Your task to perform on an android device: open app "AliExpress" Image 0: 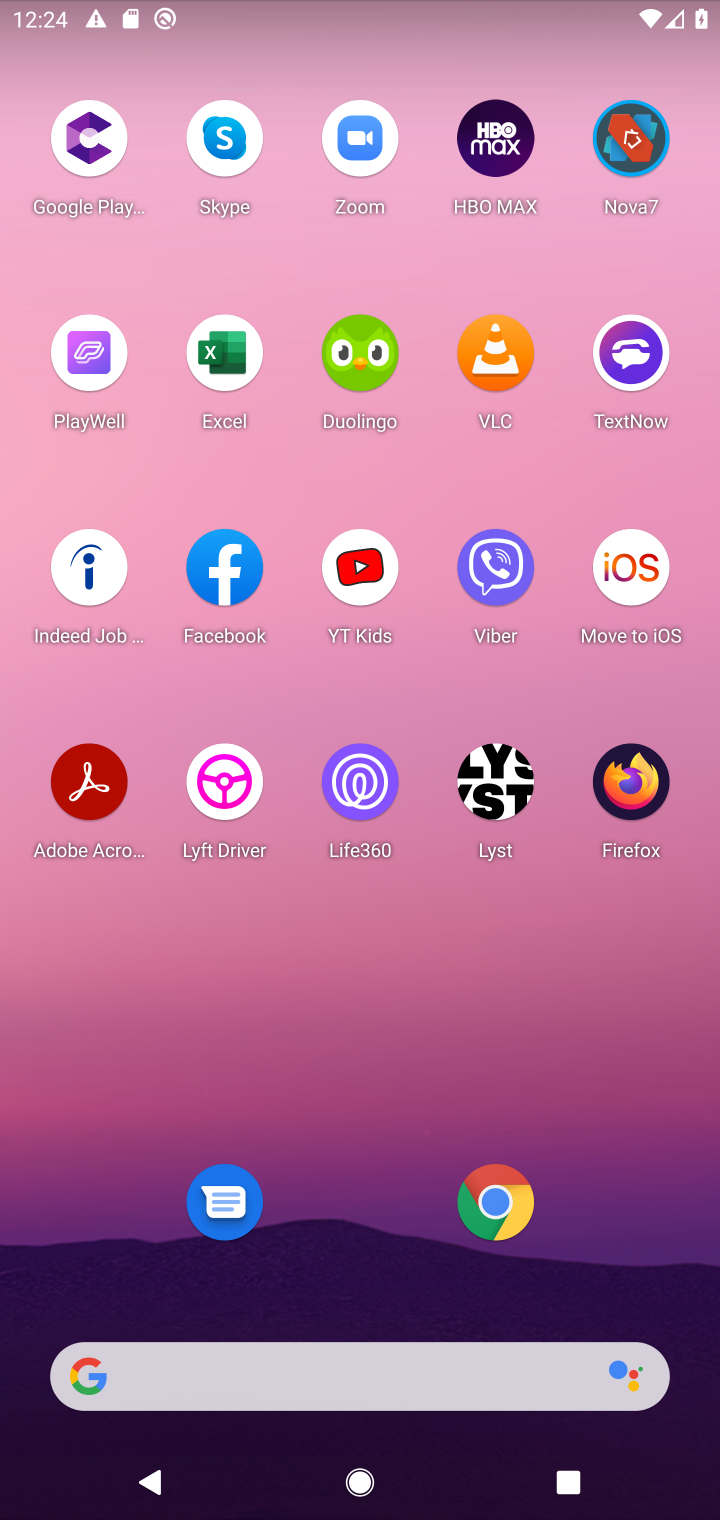
Step 0: click (412, 1347)
Your task to perform on an android device: open app "AliExpress" Image 1: 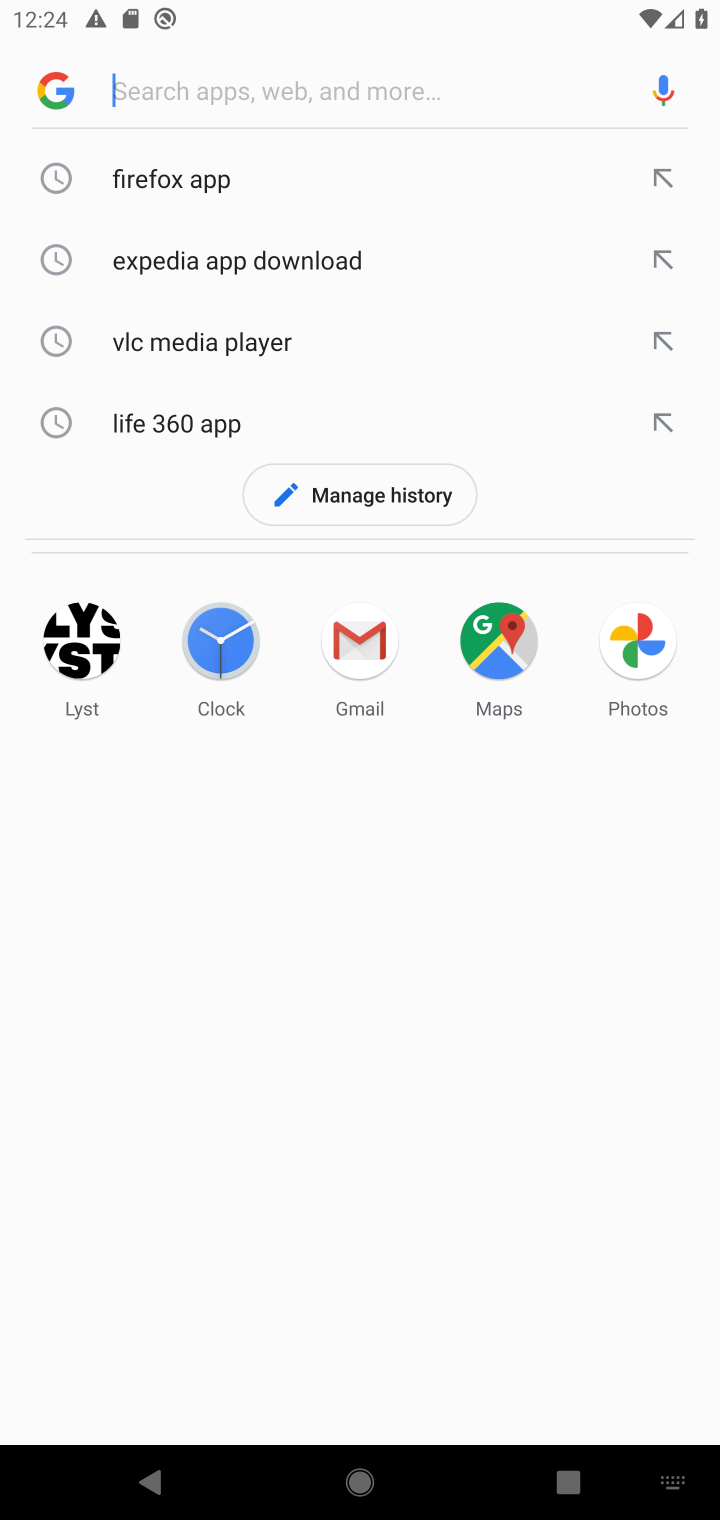
Step 1: type "aliexpress"
Your task to perform on an android device: open app "AliExpress" Image 2: 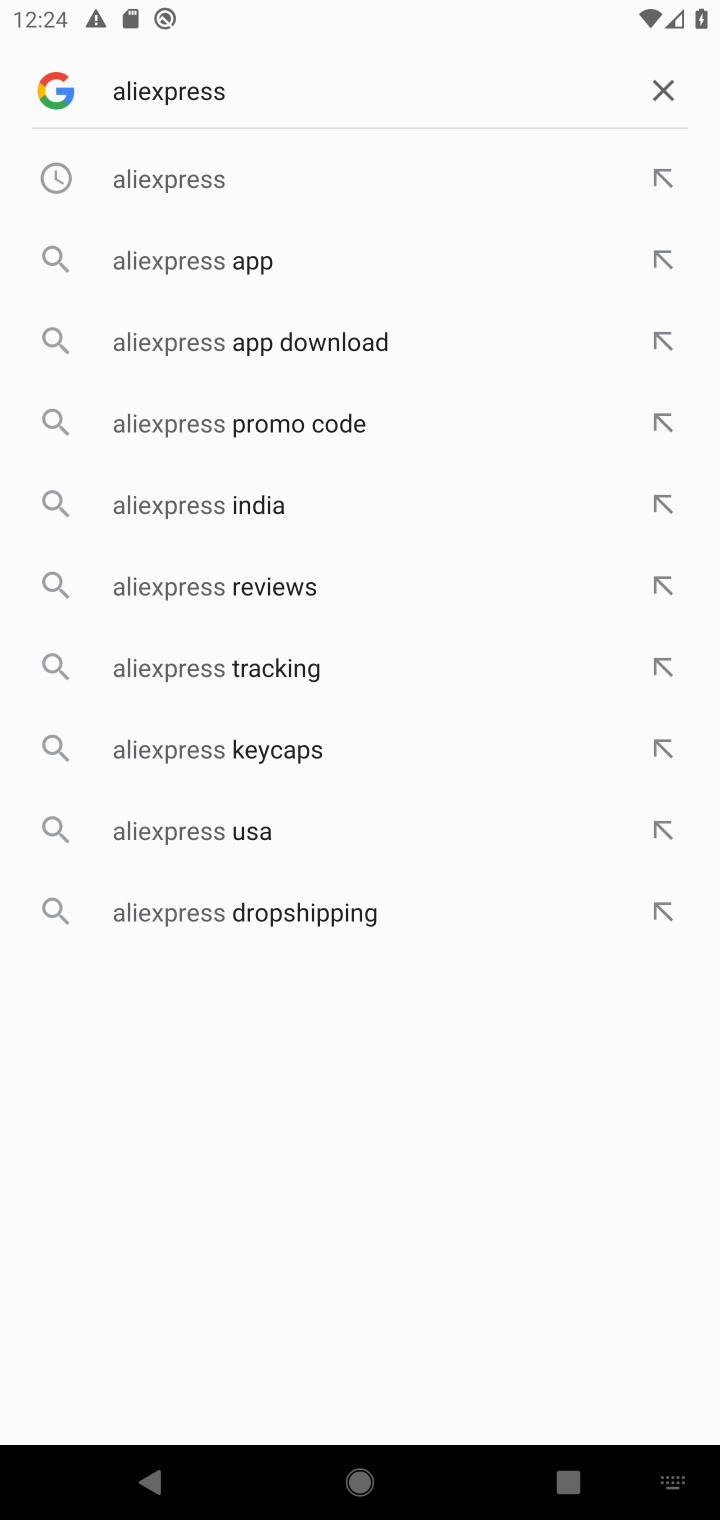
Step 2: click (222, 289)
Your task to perform on an android device: open app "AliExpress" Image 3: 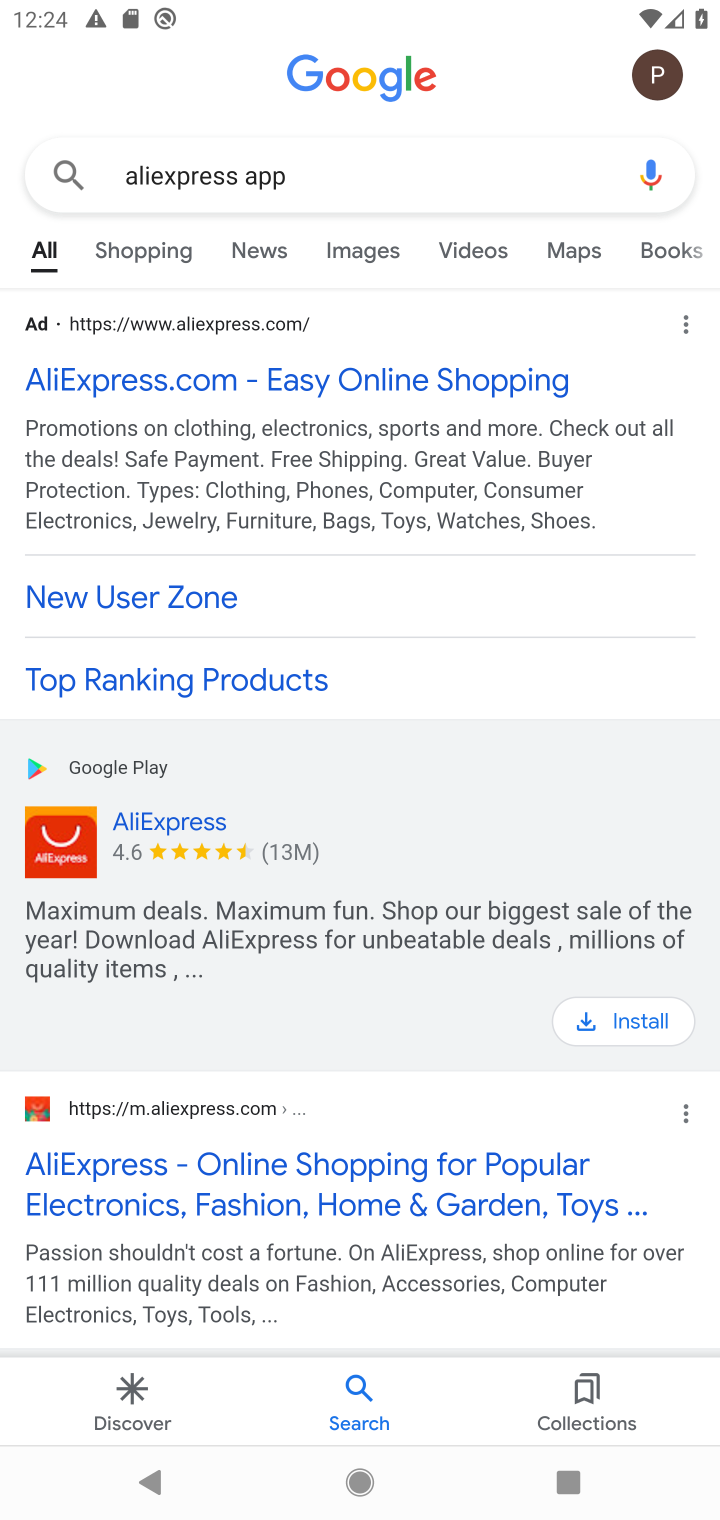
Step 3: click (595, 1000)
Your task to perform on an android device: open app "AliExpress" Image 4: 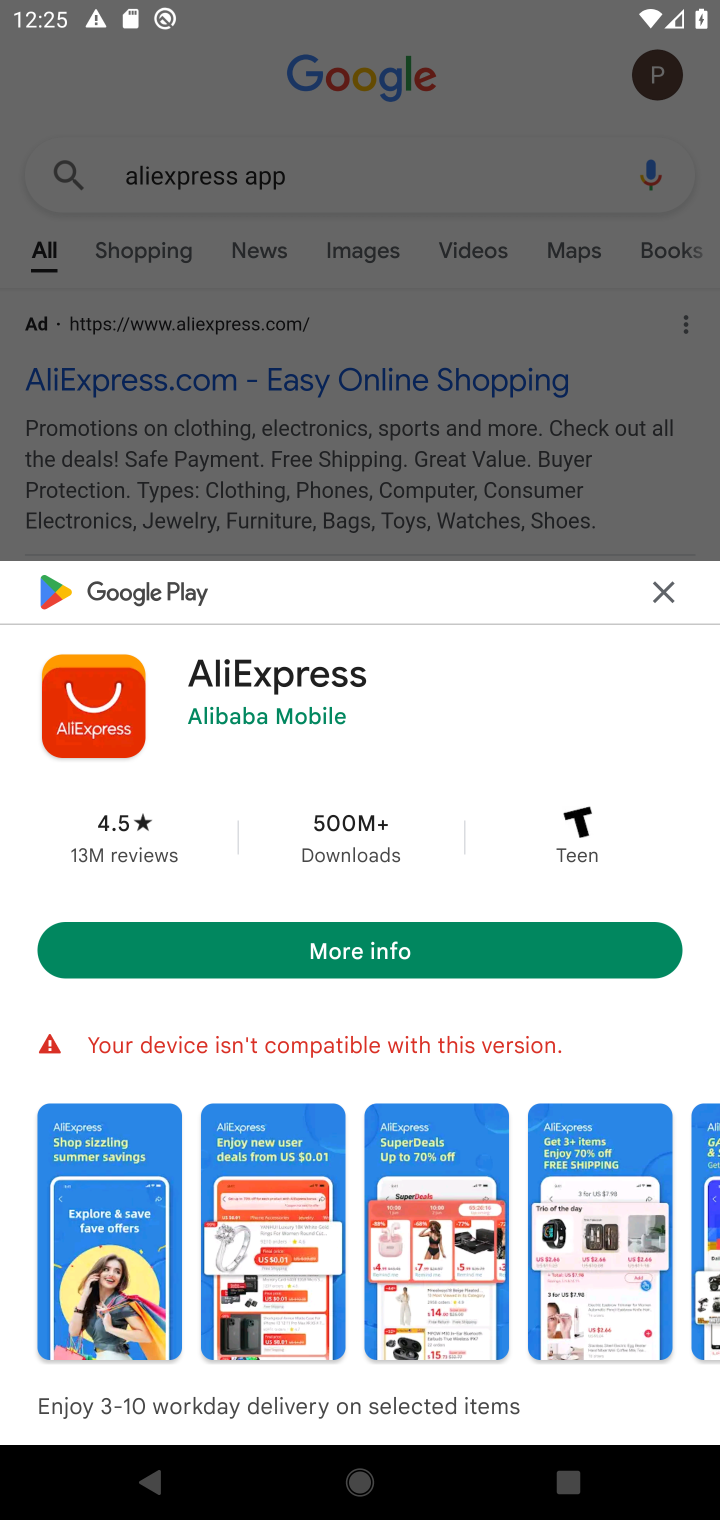
Step 4: task complete